Your task to perform on an android device: Go to internet settings Image 0: 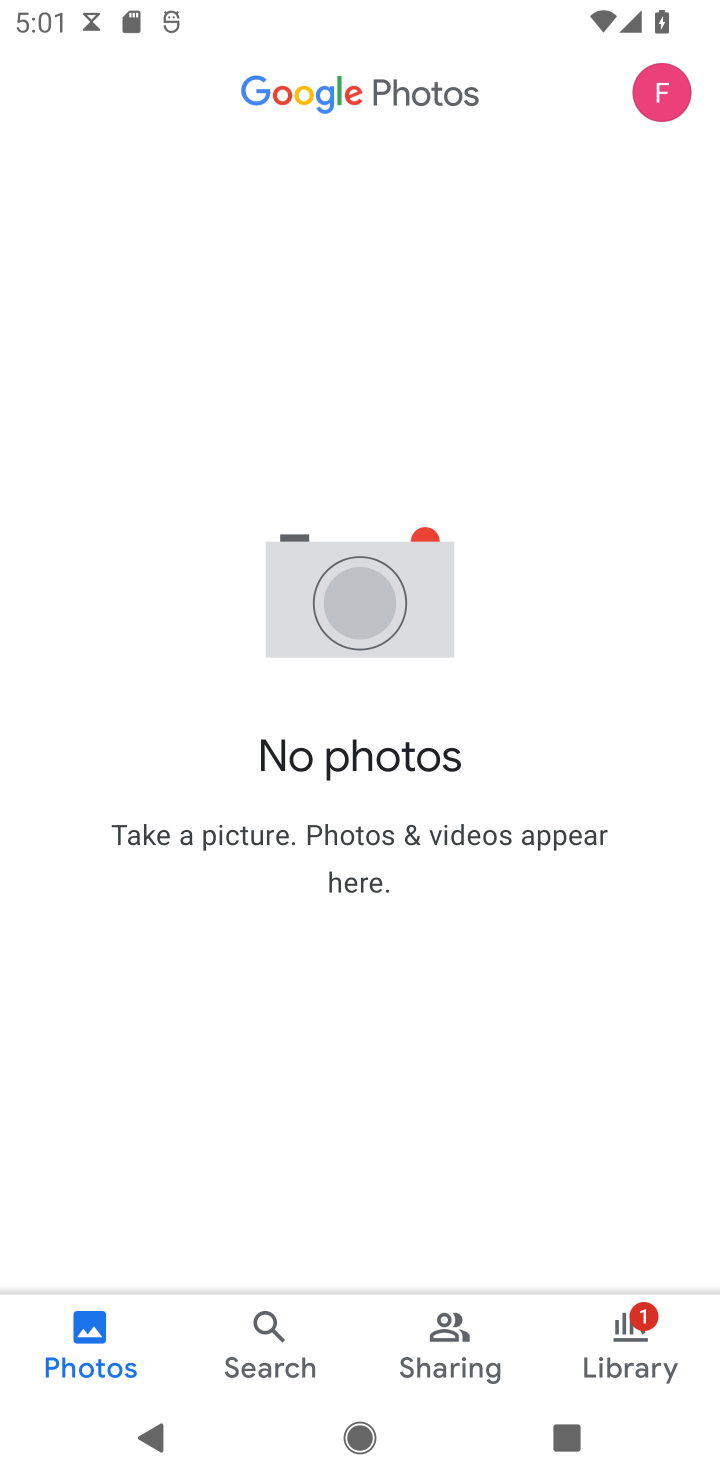
Step 0: press home button
Your task to perform on an android device: Go to internet settings Image 1: 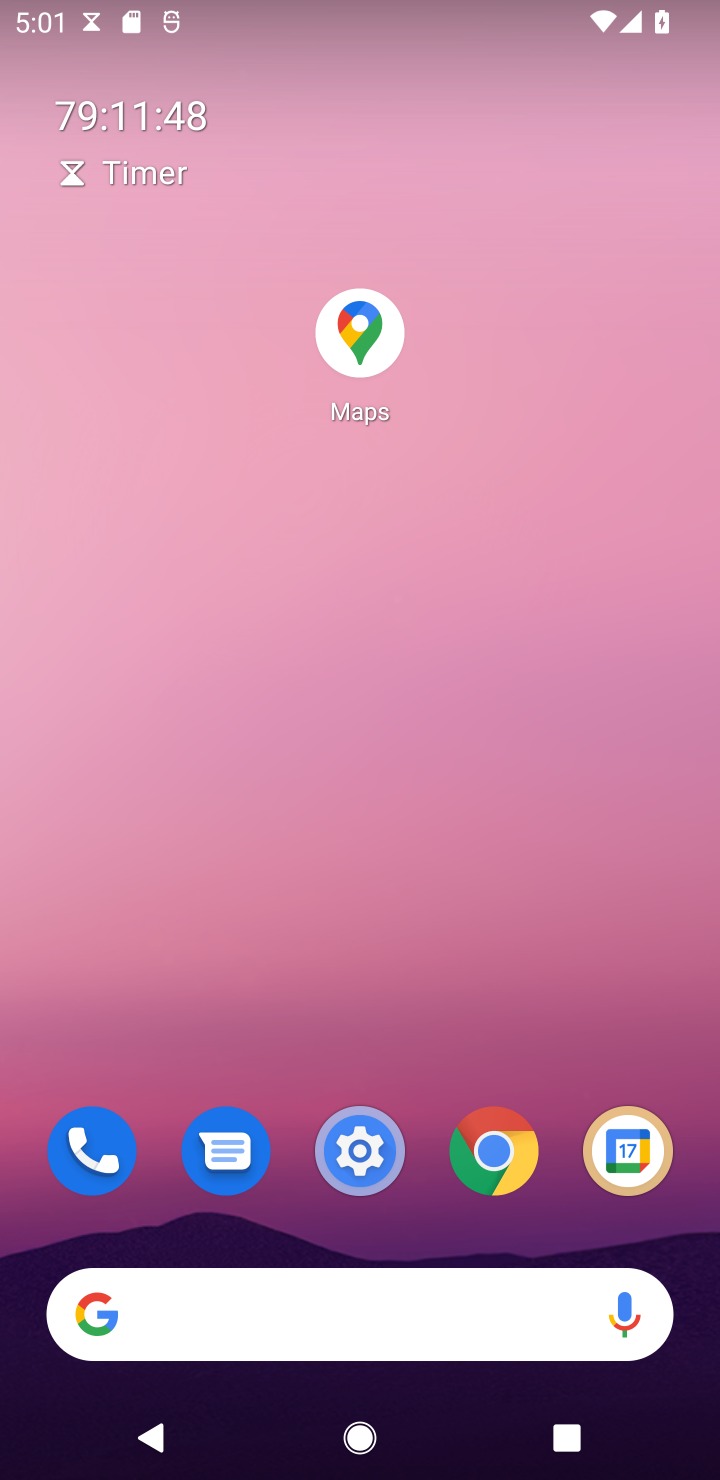
Step 1: drag from (411, 1015) to (468, 396)
Your task to perform on an android device: Go to internet settings Image 2: 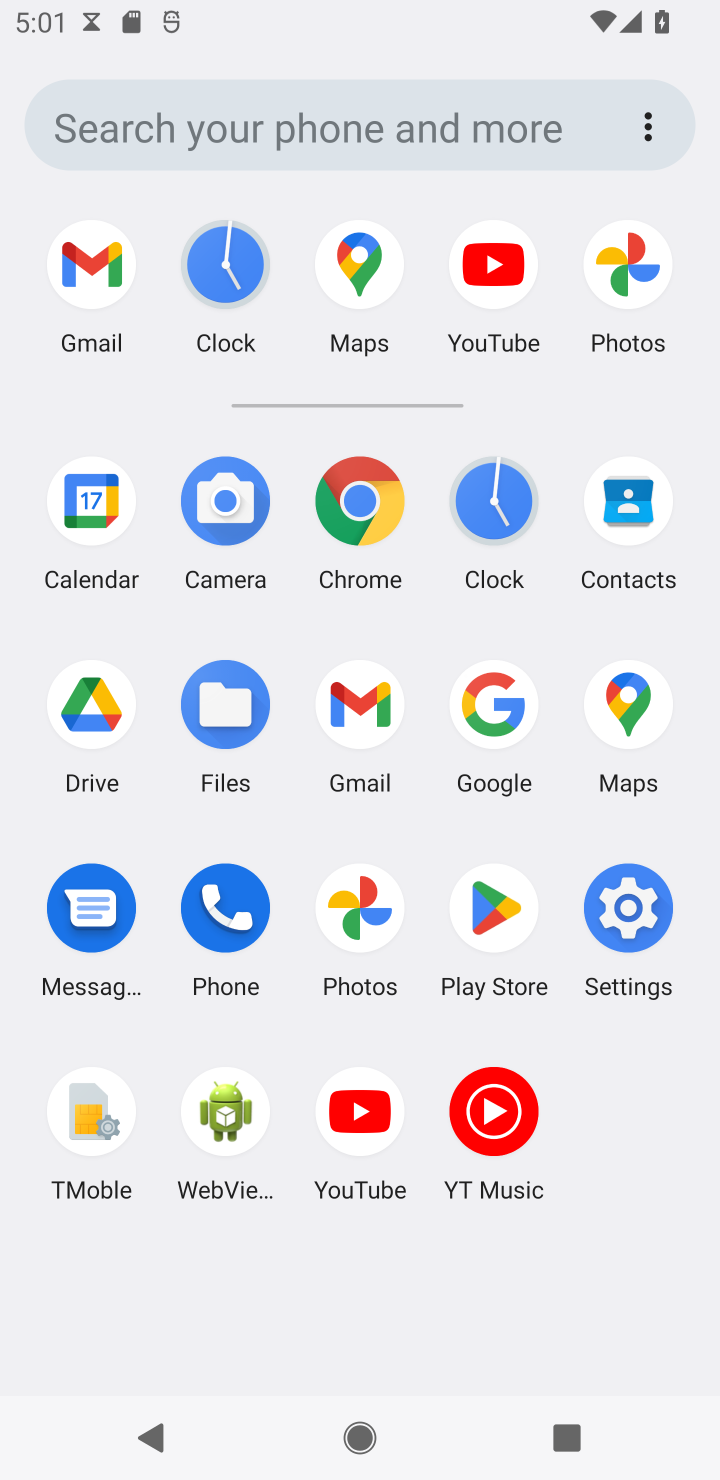
Step 2: click (642, 906)
Your task to perform on an android device: Go to internet settings Image 3: 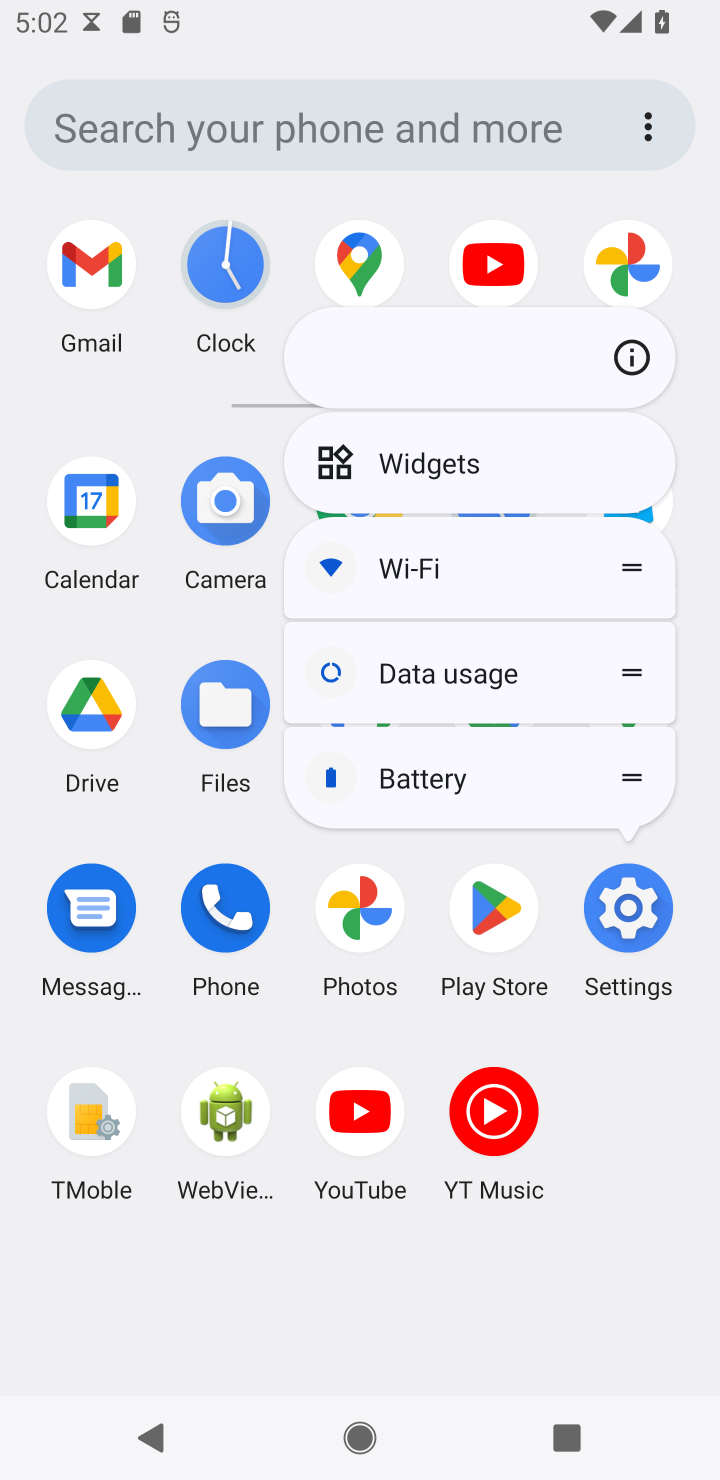
Step 3: click (639, 892)
Your task to perform on an android device: Go to internet settings Image 4: 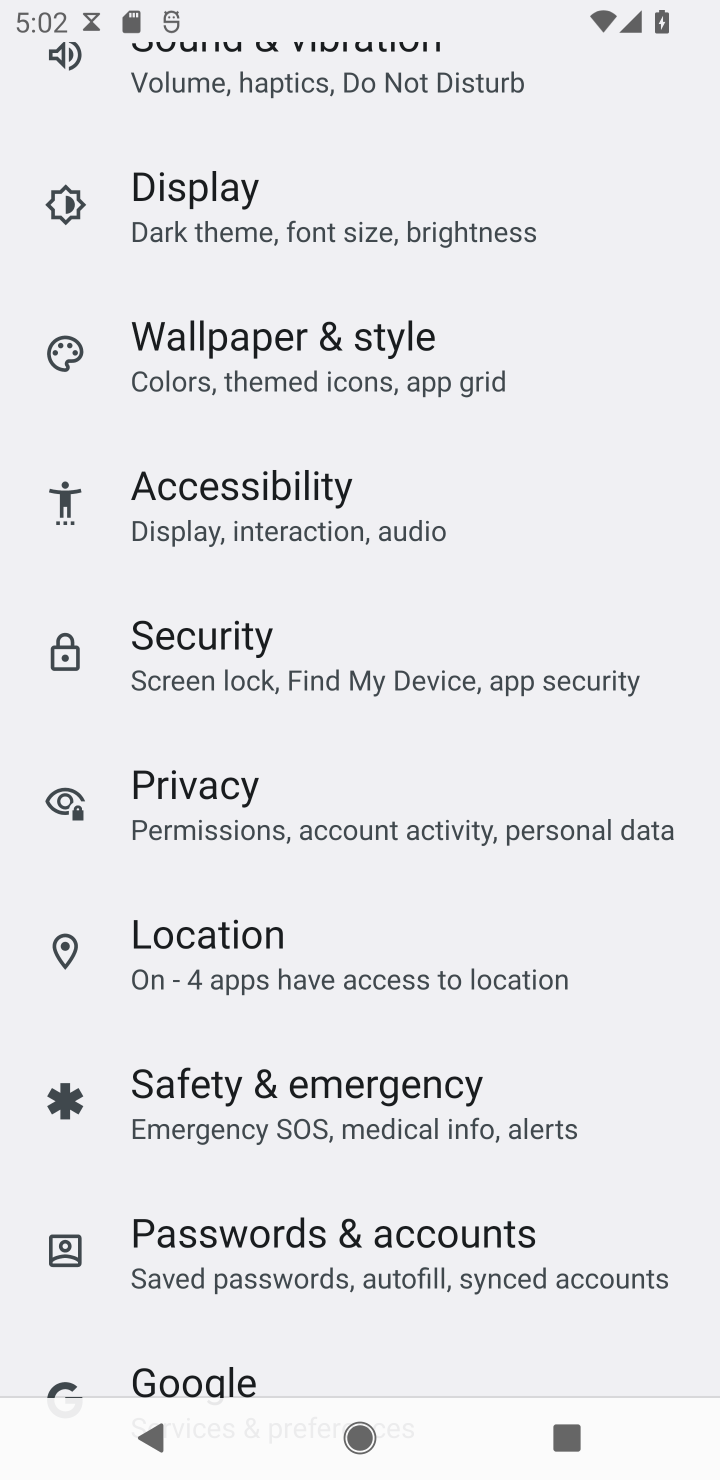
Step 4: drag from (293, 157) to (368, 1109)
Your task to perform on an android device: Go to internet settings Image 5: 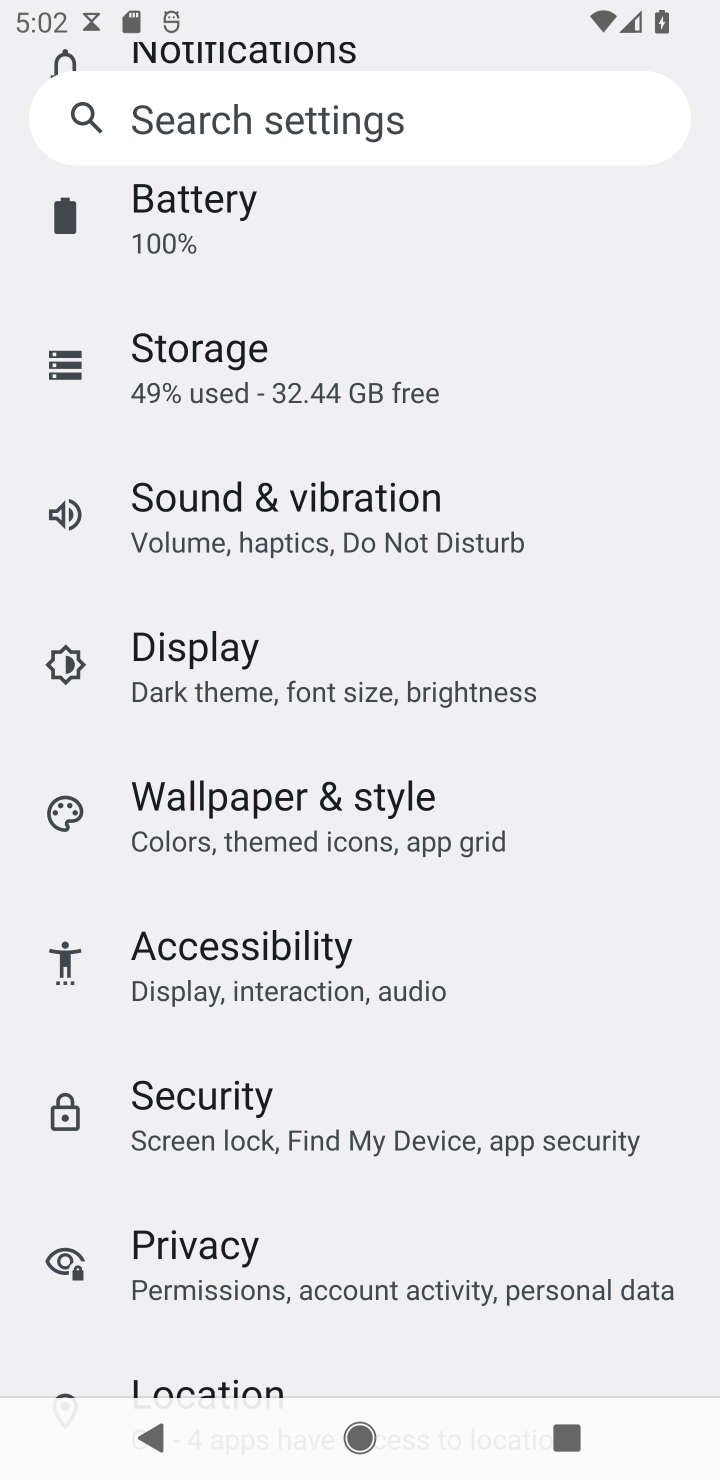
Step 5: drag from (395, 224) to (417, 1265)
Your task to perform on an android device: Go to internet settings Image 6: 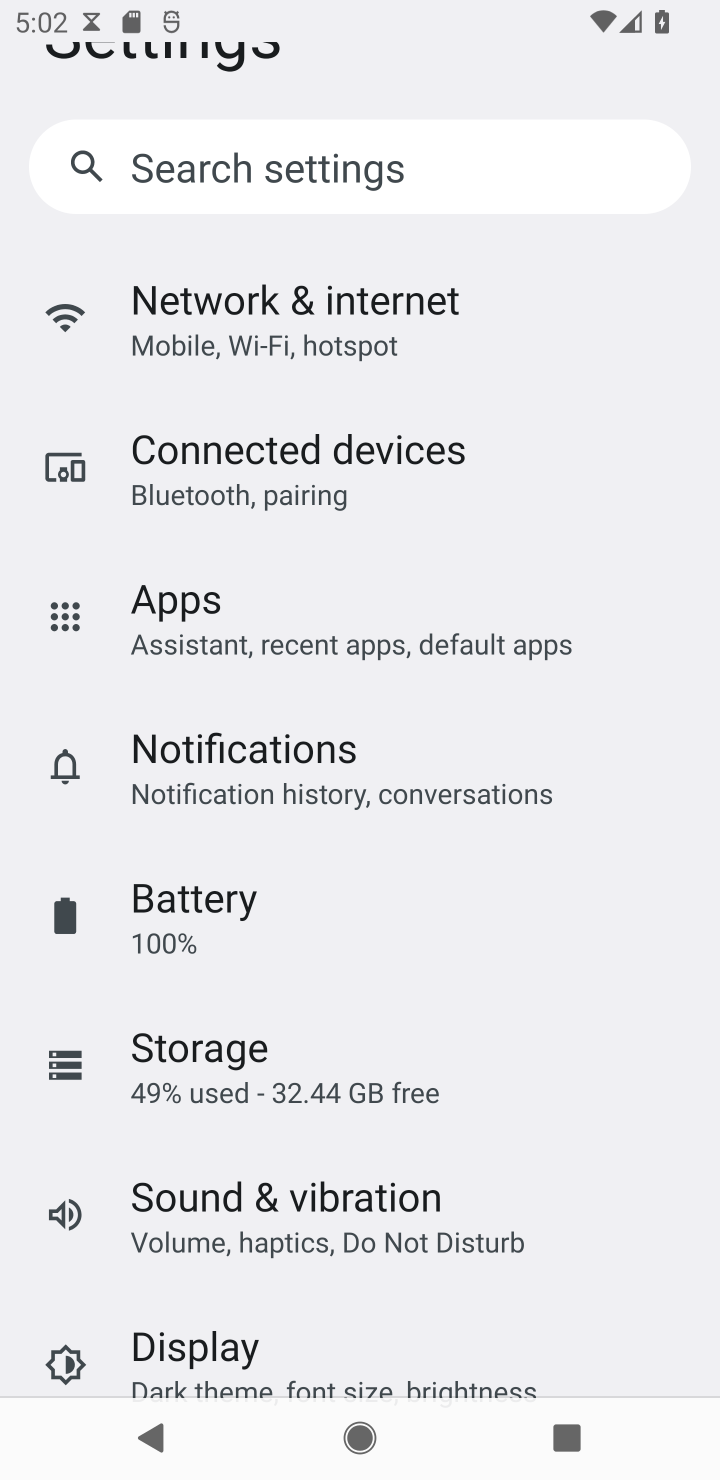
Step 6: click (286, 320)
Your task to perform on an android device: Go to internet settings Image 7: 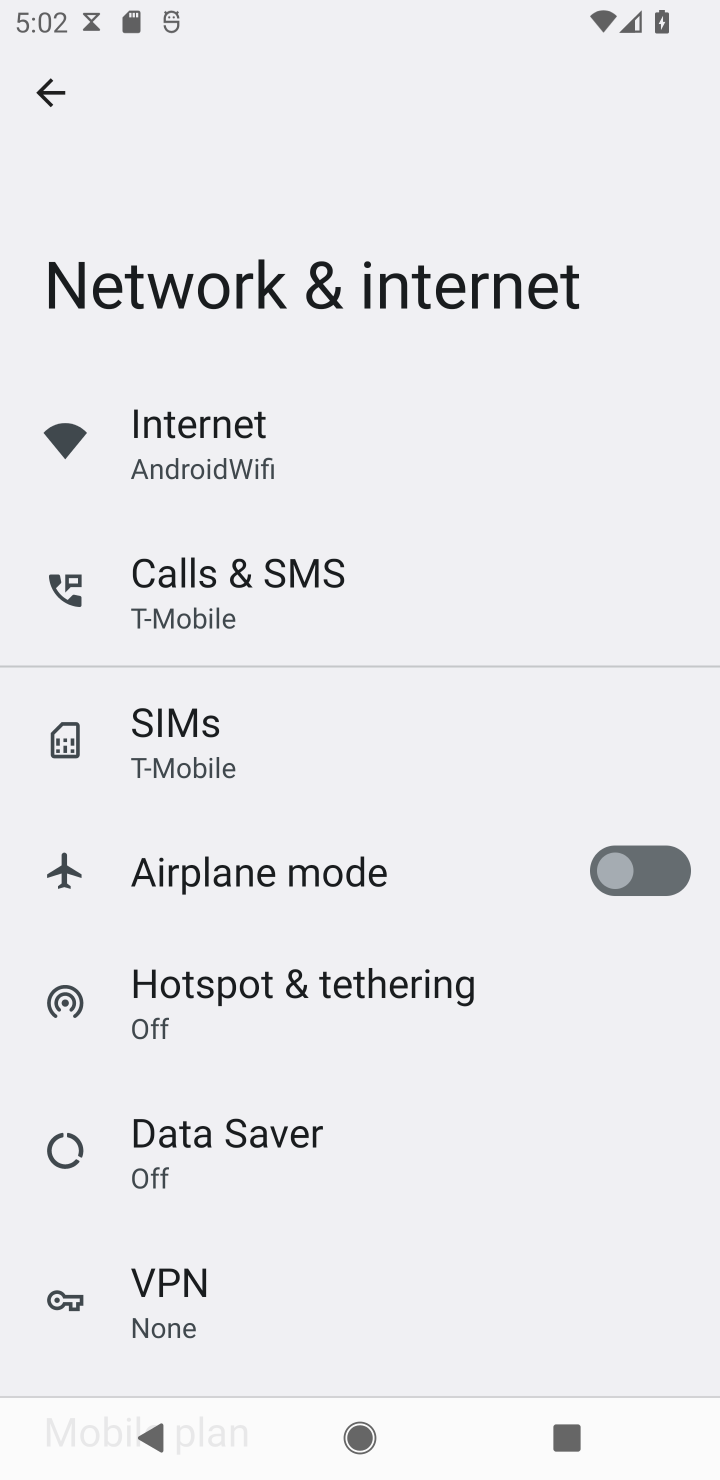
Step 7: task complete